Your task to perform on an android device: turn off location Image 0: 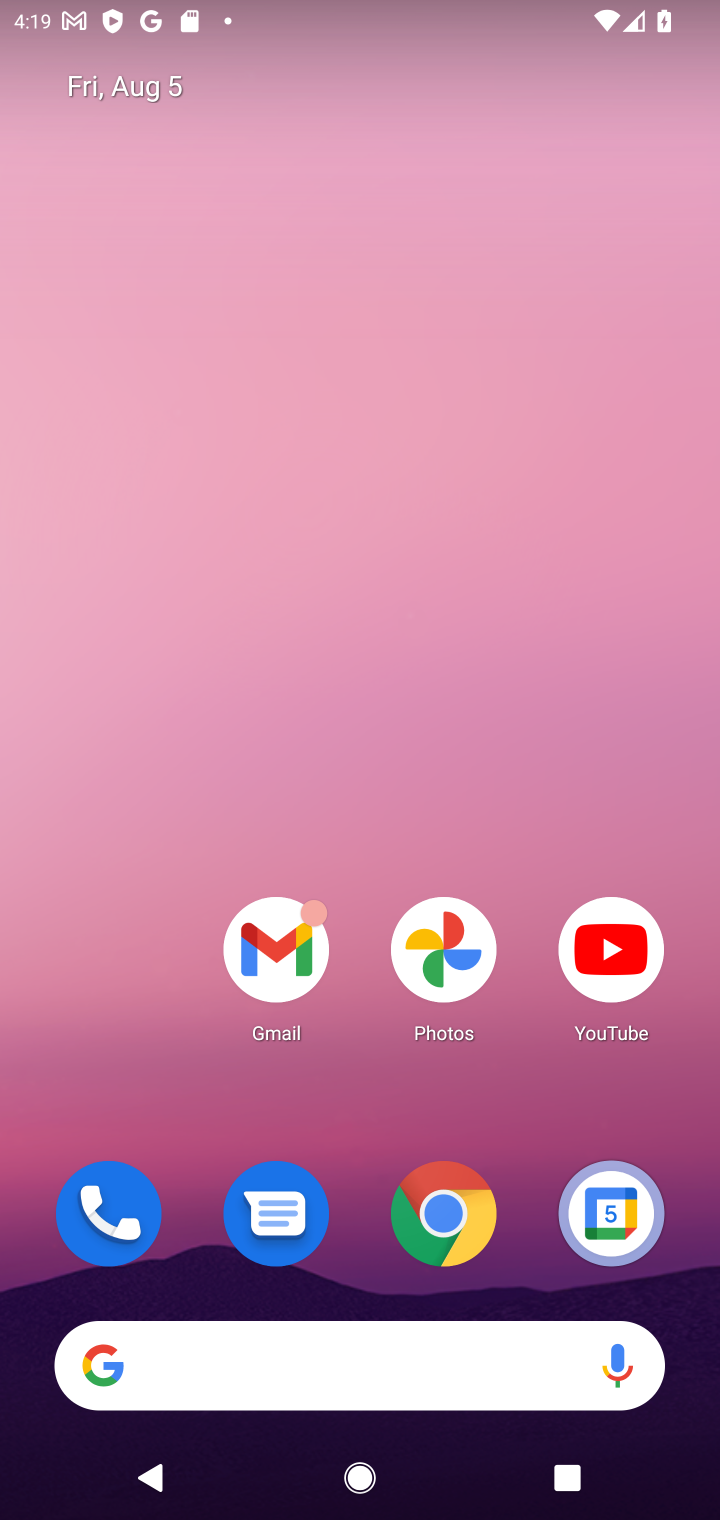
Step 0: drag from (353, 1287) to (418, 231)
Your task to perform on an android device: turn off location Image 1: 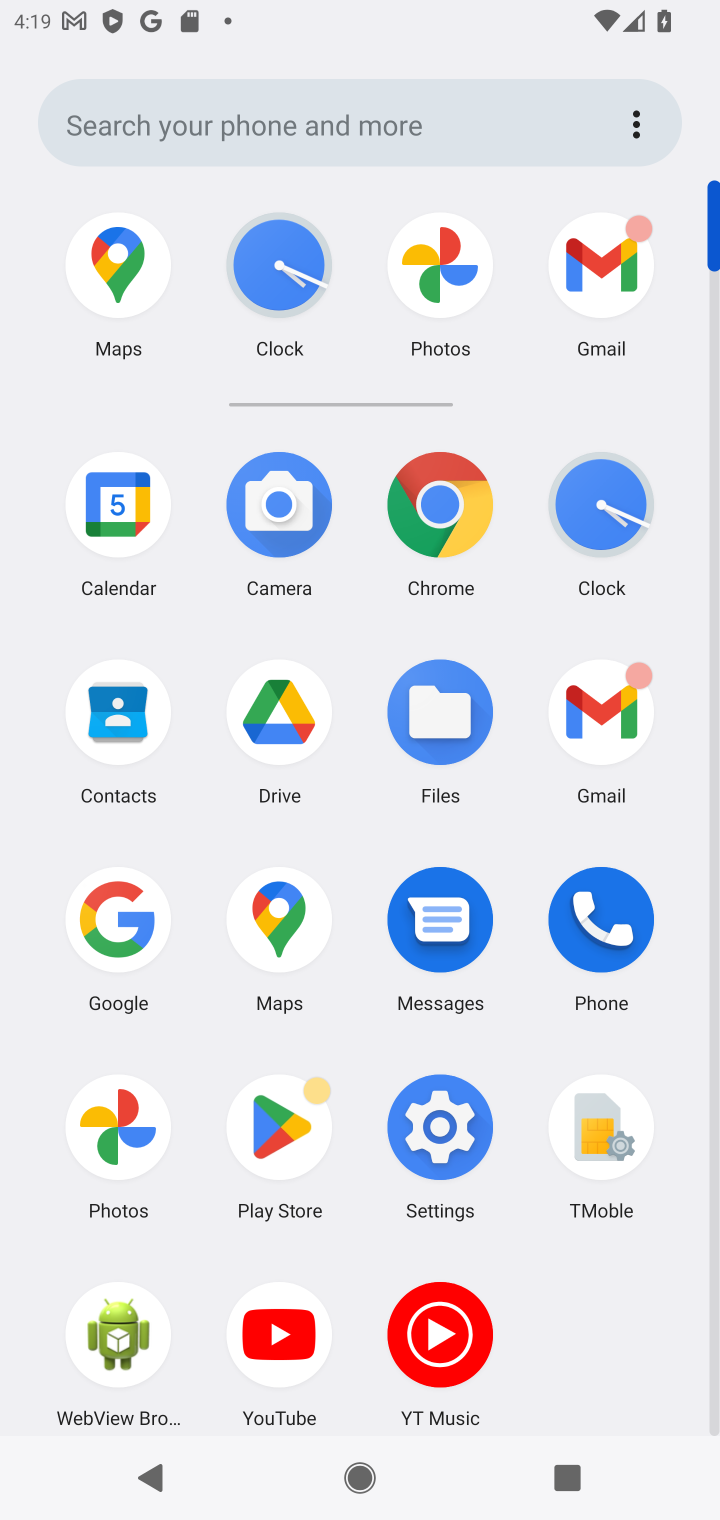
Step 1: click (456, 1096)
Your task to perform on an android device: turn off location Image 2: 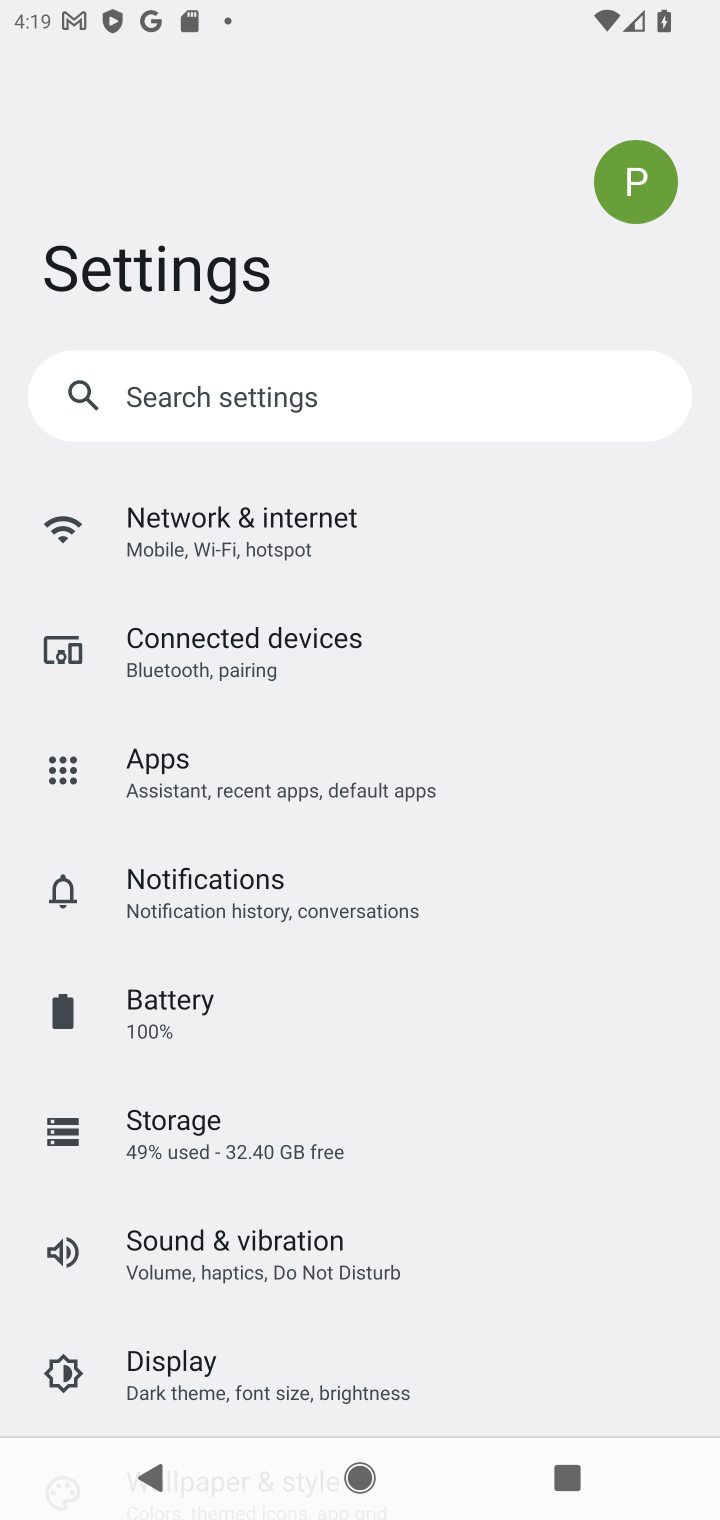
Step 2: drag from (259, 1232) to (325, 594)
Your task to perform on an android device: turn off location Image 3: 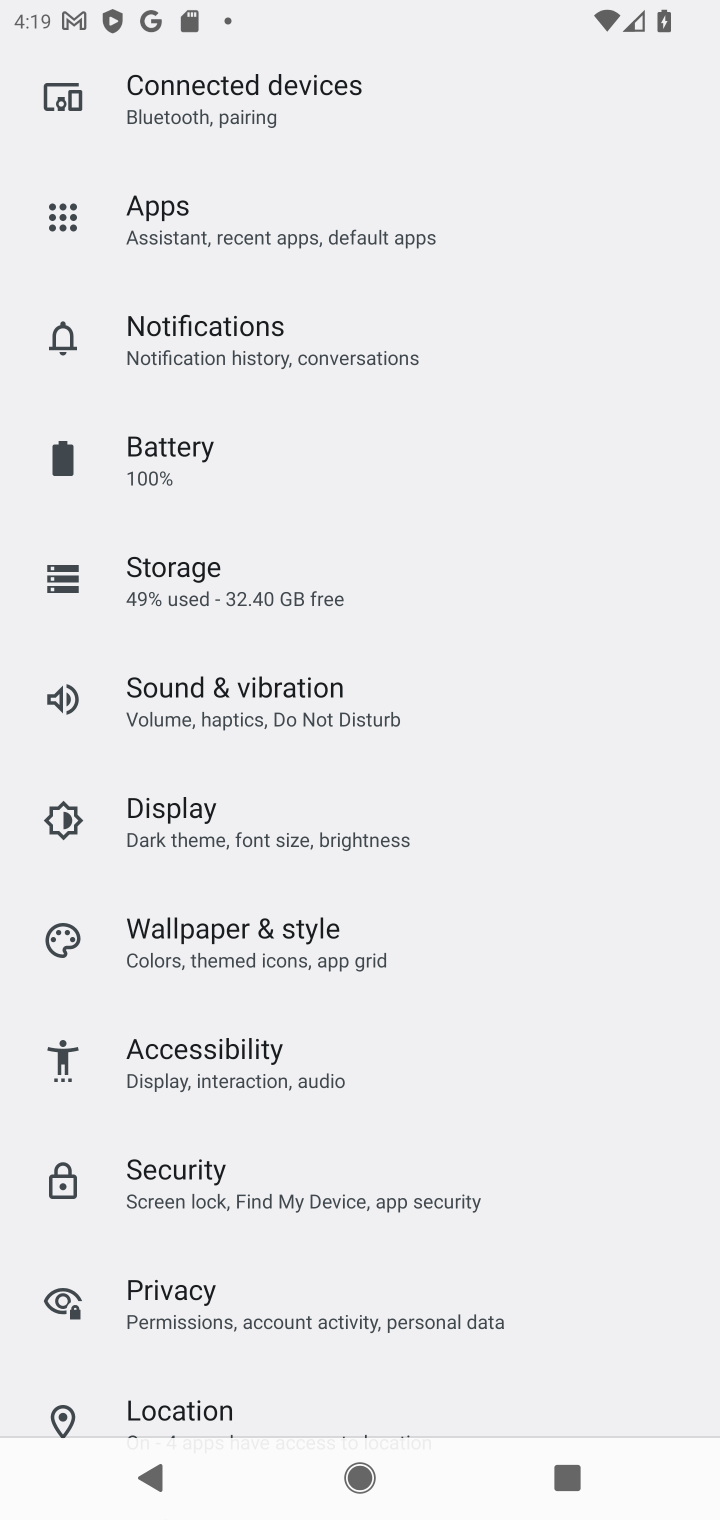
Step 3: click (323, 1407)
Your task to perform on an android device: turn off location Image 4: 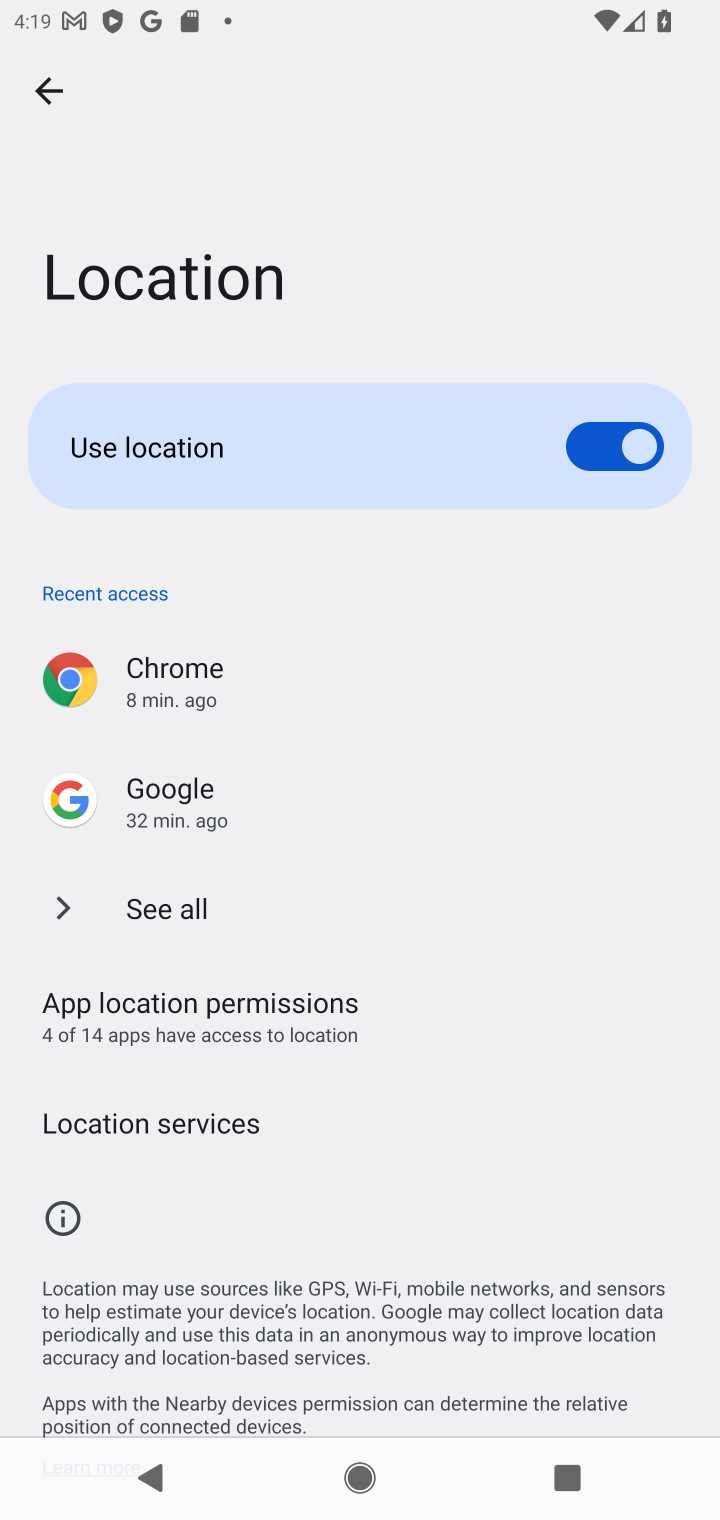
Step 4: task complete